Your task to perform on an android device: open chrome privacy settings Image 0: 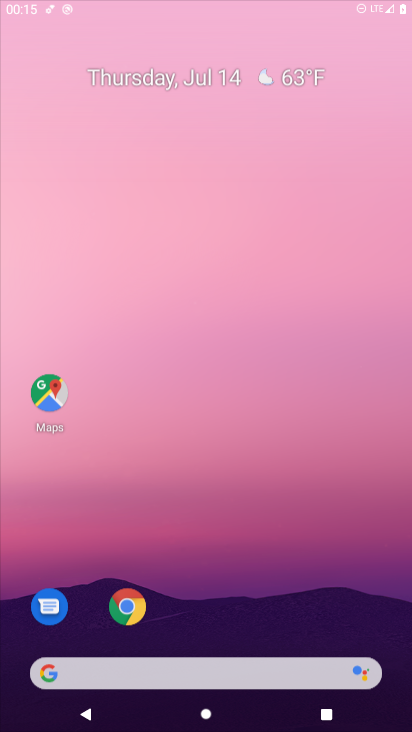
Step 0: press home button
Your task to perform on an android device: open chrome privacy settings Image 1: 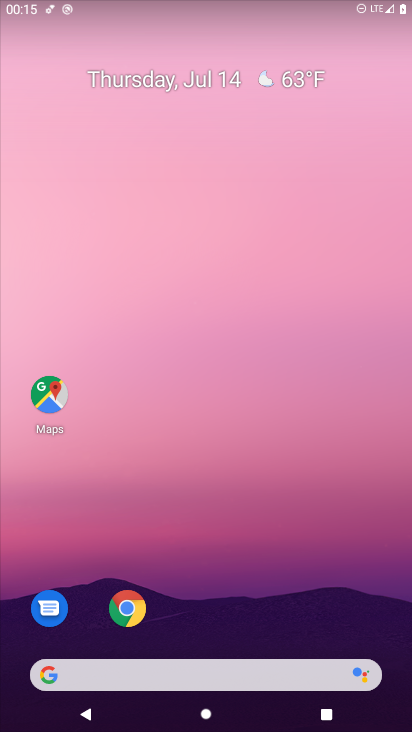
Step 1: drag from (209, 632) to (237, 86)
Your task to perform on an android device: open chrome privacy settings Image 2: 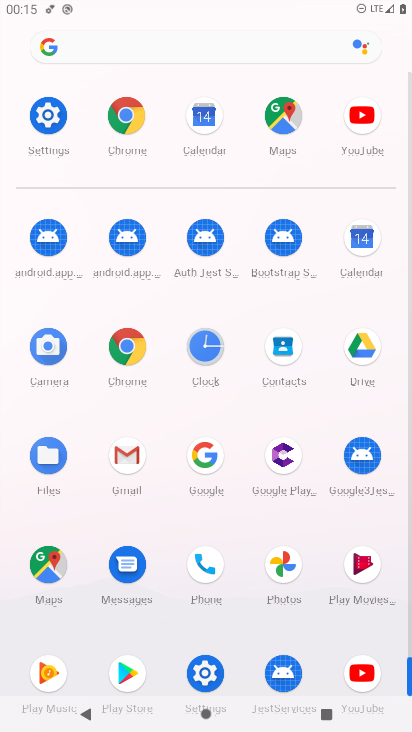
Step 2: click (124, 112)
Your task to perform on an android device: open chrome privacy settings Image 3: 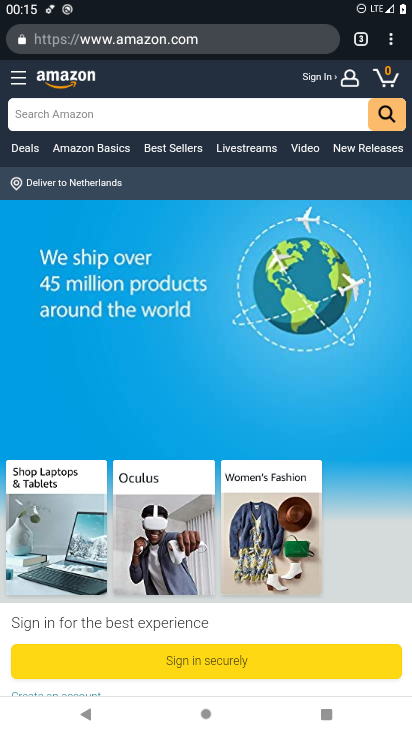
Step 3: drag from (390, 38) to (262, 469)
Your task to perform on an android device: open chrome privacy settings Image 4: 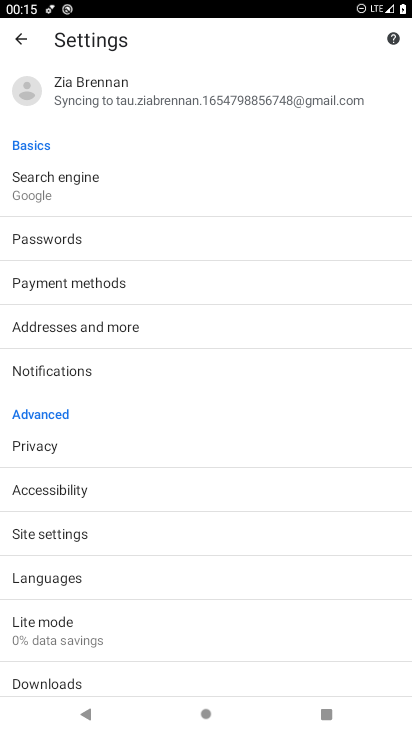
Step 4: click (32, 444)
Your task to perform on an android device: open chrome privacy settings Image 5: 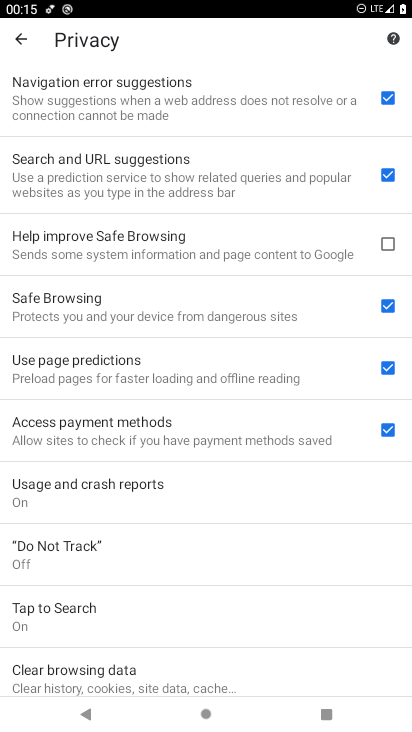
Step 5: task complete